Your task to perform on an android device: Set the phone to "Do not disturb". Image 0: 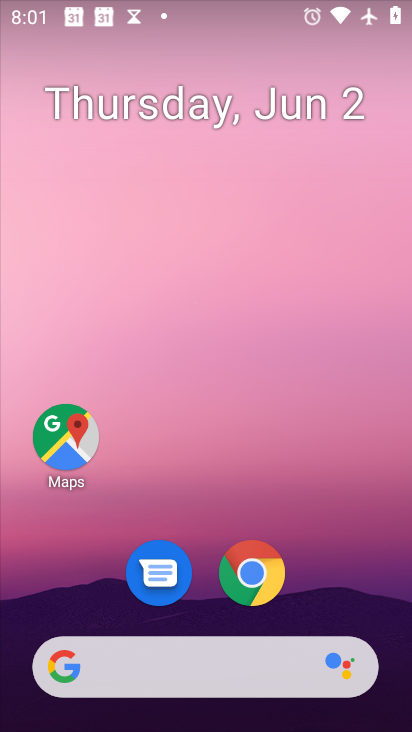
Step 0: press home button
Your task to perform on an android device: Set the phone to "Do not disturb". Image 1: 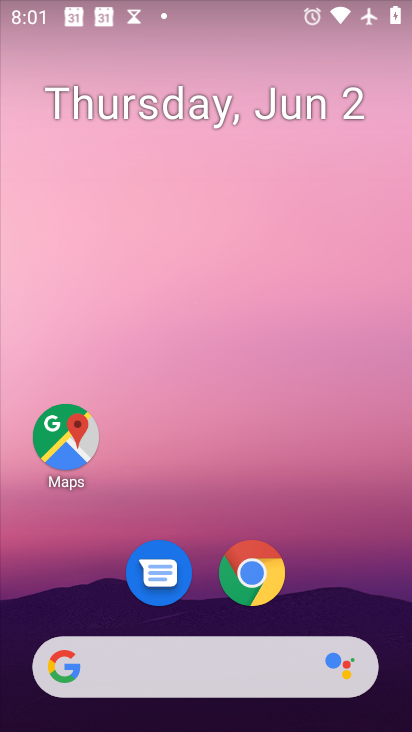
Step 1: drag from (180, 677) to (270, 113)
Your task to perform on an android device: Set the phone to "Do not disturb". Image 2: 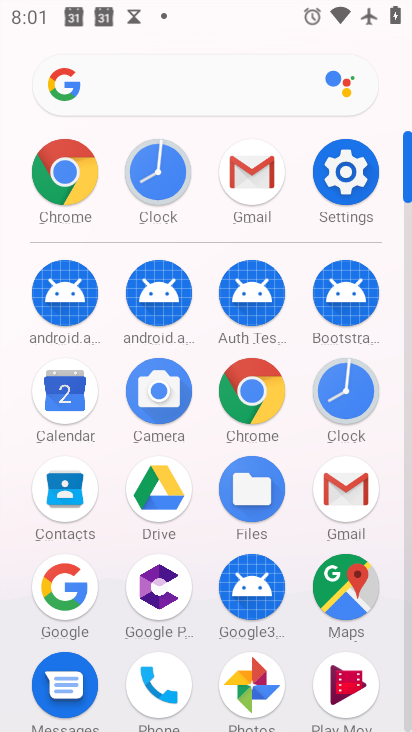
Step 2: click (357, 181)
Your task to perform on an android device: Set the phone to "Do not disturb". Image 3: 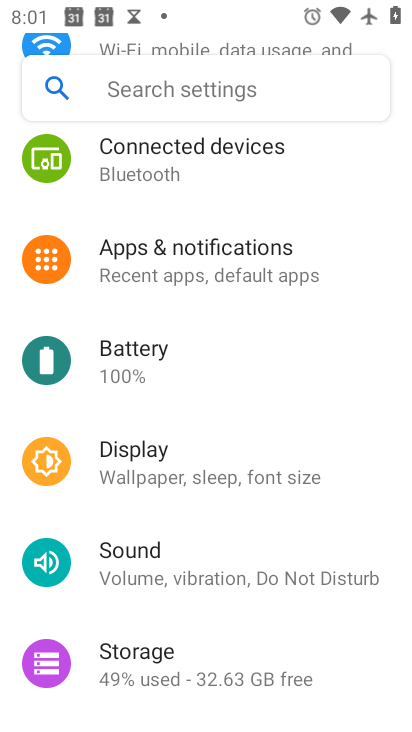
Step 3: drag from (230, 635) to (299, 254)
Your task to perform on an android device: Set the phone to "Do not disturb". Image 4: 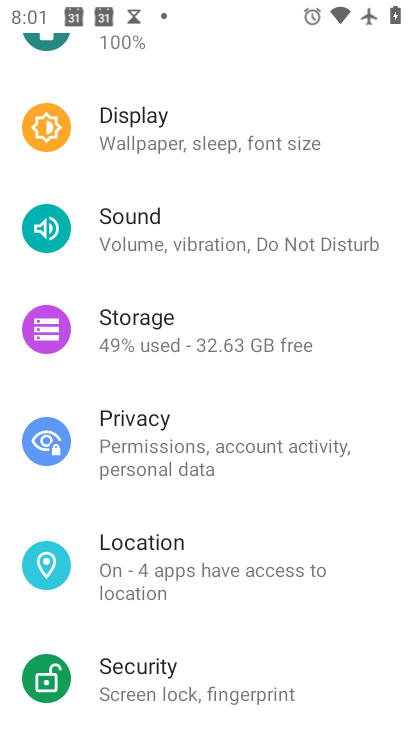
Step 4: click (231, 240)
Your task to perform on an android device: Set the phone to "Do not disturb". Image 5: 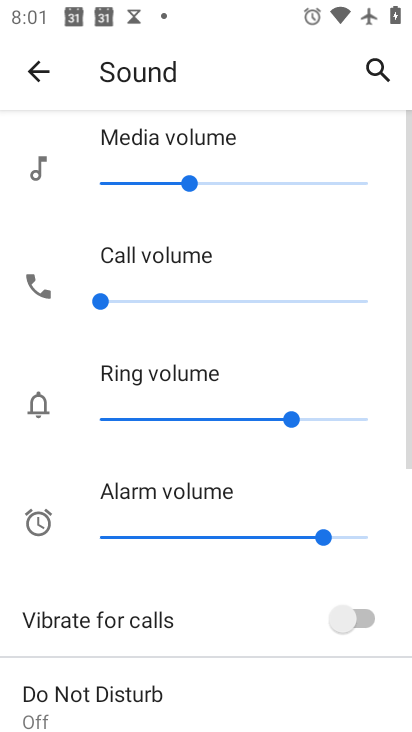
Step 5: drag from (242, 670) to (343, 114)
Your task to perform on an android device: Set the phone to "Do not disturb". Image 6: 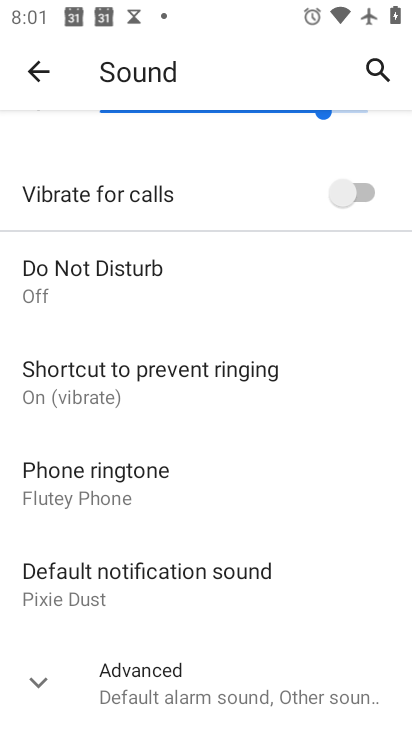
Step 6: click (95, 277)
Your task to perform on an android device: Set the phone to "Do not disturb". Image 7: 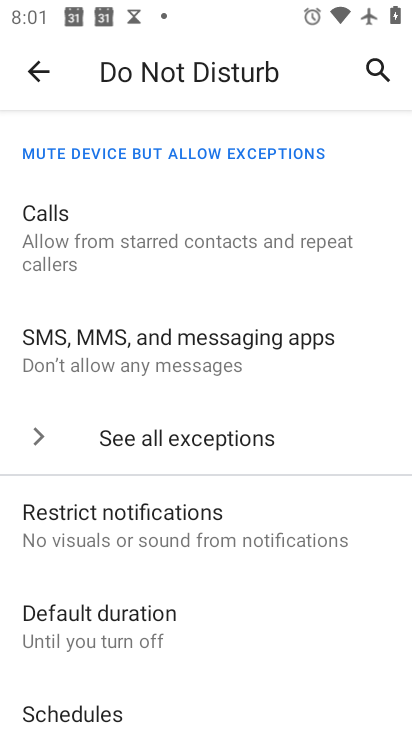
Step 7: drag from (141, 587) to (310, 85)
Your task to perform on an android device: Set the phone to "Do not disturb". Image 8: 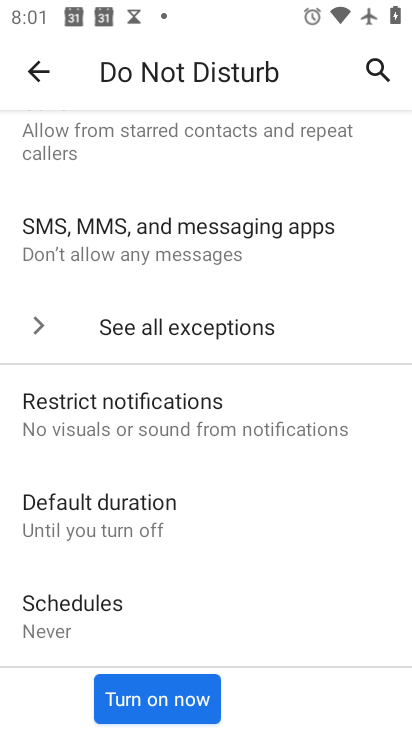
Step 8: click (153, 701)
Your task to perform on an android device: Set the phone to "Do not disturb". Image 9: 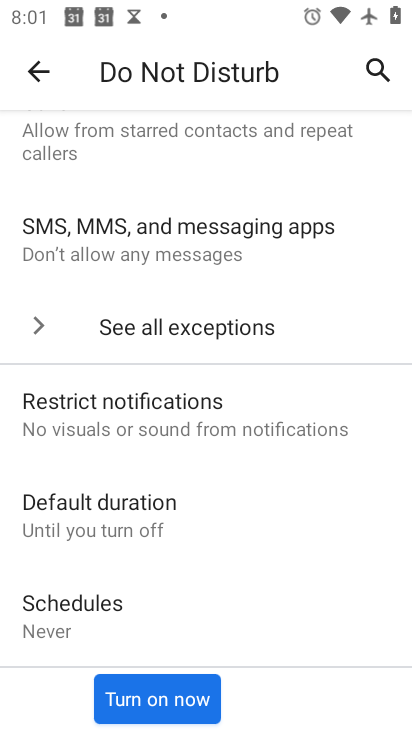
Step 9: click (184, 697)
Your task to perform on an android device: Set the phone to "Do not disturb". Image 10: 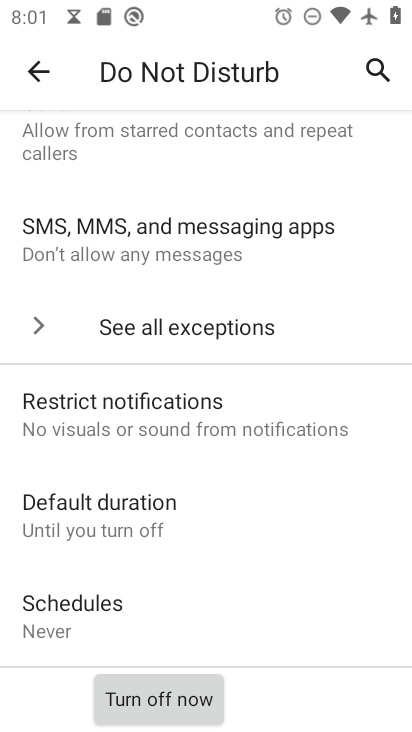
Step 10: task complete